Your task to perform on an android device: toggle javascript in the chrome app Image 0: 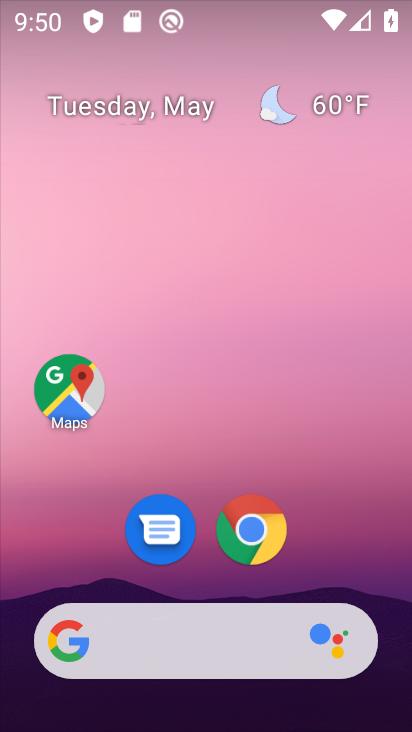
Step 0: click (247, 535)
Your task to perform on an android device: toggle javascript in the chrome app Image 1: 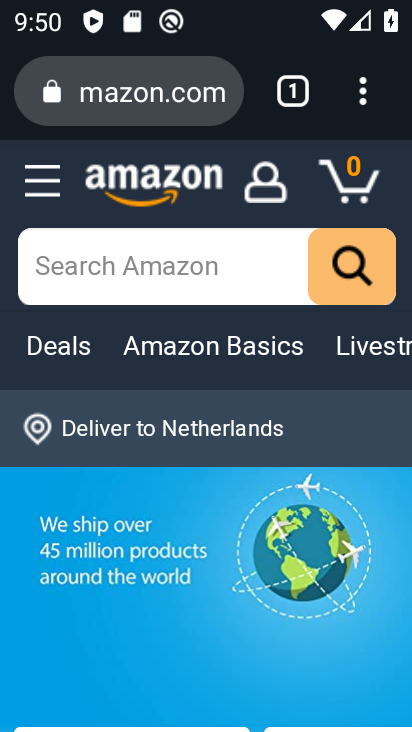
Step 1: click (357, 91)
Your task to perform on an android device: toggle javascript in the chrome app Image 2: 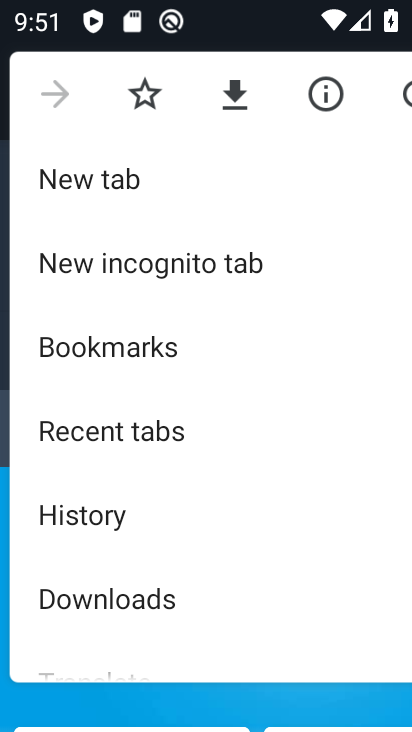
Step 2: drag from (145, 621) to (112, 485)
Your task to perform on an android device: toggle javascript in the chrome app Image 3: 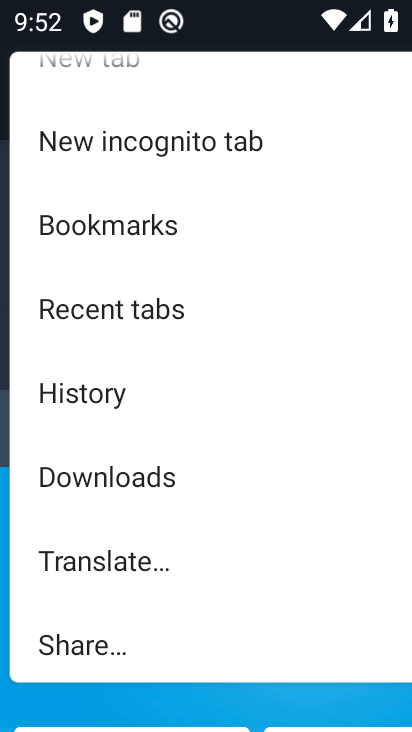
Step 3: drag from (90, 629) to (69, 383)
Your task to perform on an android device: toggle javascript in the chrome app Image 4: 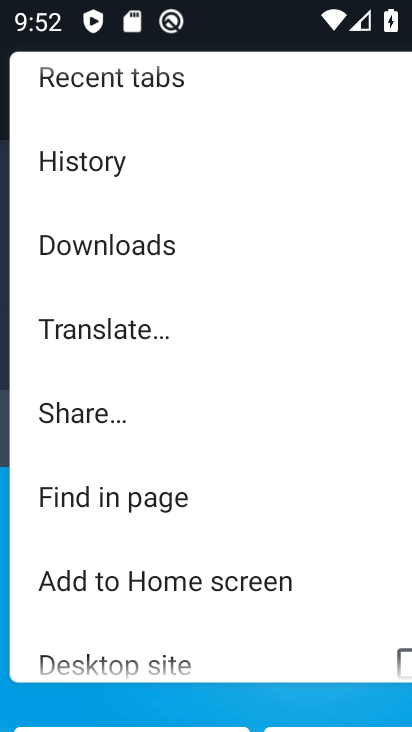
Step 4: drag from (116, 656) to (96, 356)
Your task to perform on an android device: toggle javascript in the chrome app Image 5: 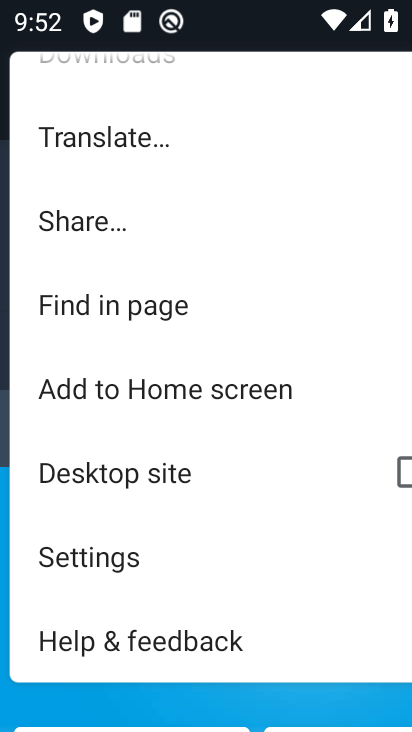
Step 5: click (110, 562)
Your task to perform on an android device: toggle javascript in the chrome app Image 6: 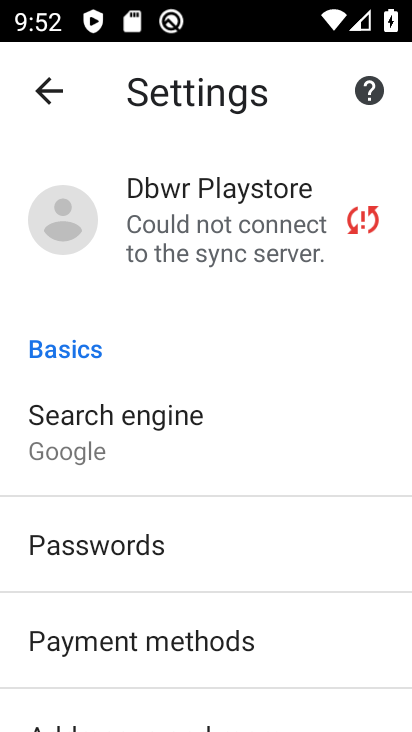
Step 6: drag from (127, 656) to (175, 379)
Your task to perform on an android device: toggle javascript in the chrome app Image 7: 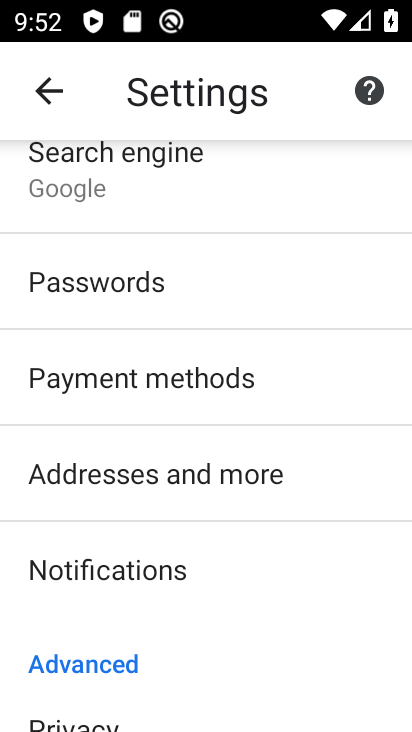
Step 7: drag from (113, 696) to (108, 361)
Your task to perform on an android device: toggle javascript in the chrome app Image 8: 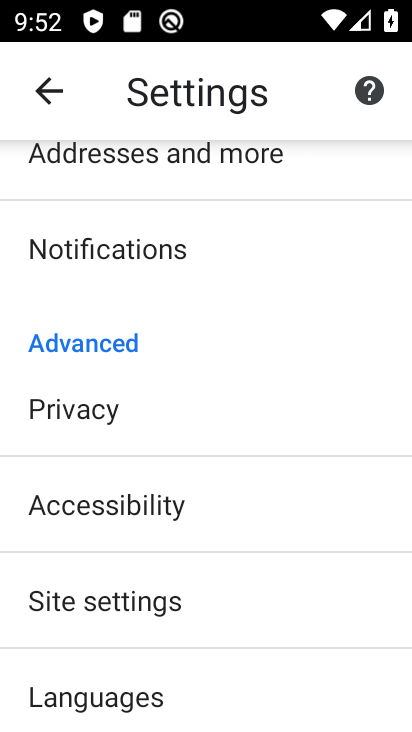
Step 8: click (91, 647)
Your task to perform on an android device: toggle javascript in the chrome app Image 9: 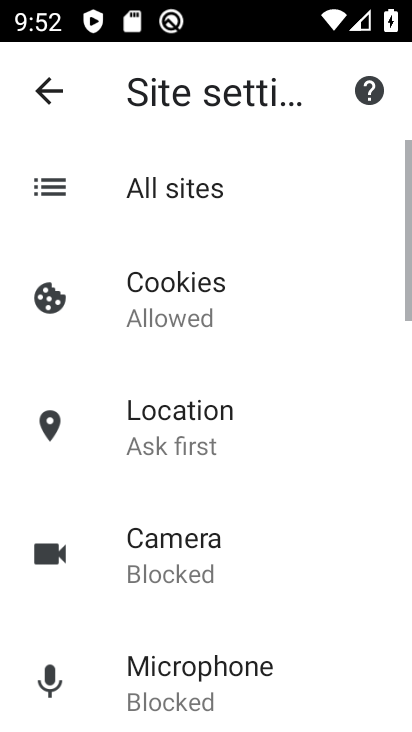
Step 9: drag from (103, 682) to (125, 348)
Your task to perform on an android device: toggle javascript in the chrome app Image 10: 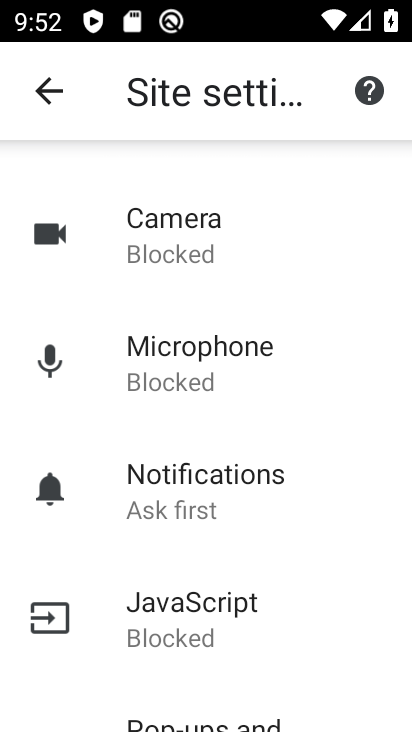
Step 10: click (179, 622)
Your task to perform on an android device: toggle javascript in the chrome app Image 11: 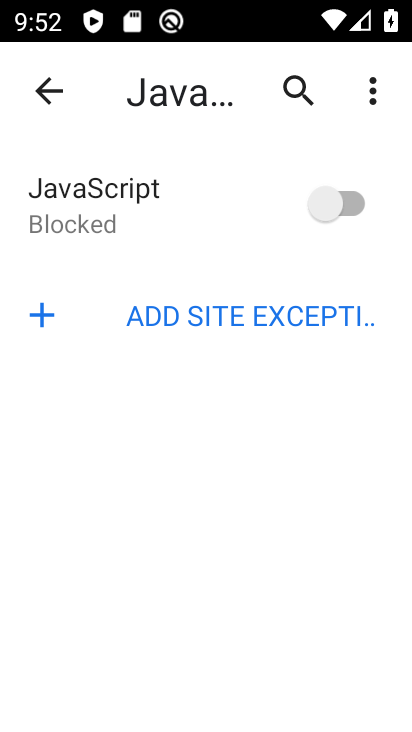
Step 11: click (359, 195)
Your task to perform on an android device: toggle javascript in the chrome app Image 12: 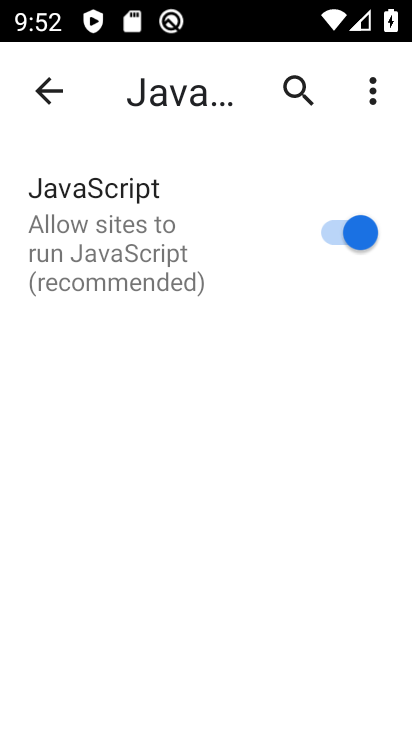
Step 12: task complete